Your task to perform on an android device: Open the calendar app, open the side menu, and click the "Day" option Image 0: 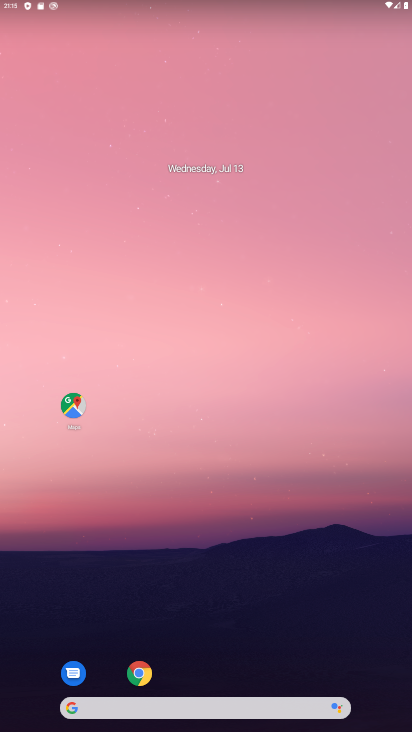
Step 0: drag from (194, 664) to (221, 71)
Your task to perform on an android device: Open the calendar app, open the side menu, and click the "Day" option Image 1: 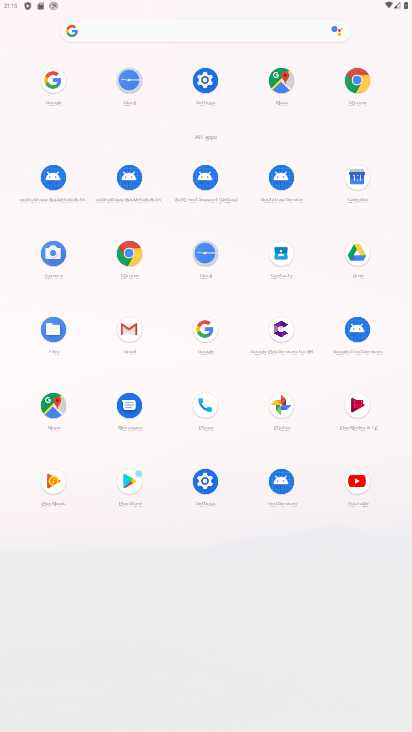
Step 1: click (351, 192)
Your task to perform on an android device: Open the calendar app, open the side menu, and click the "Day" option Image 2: 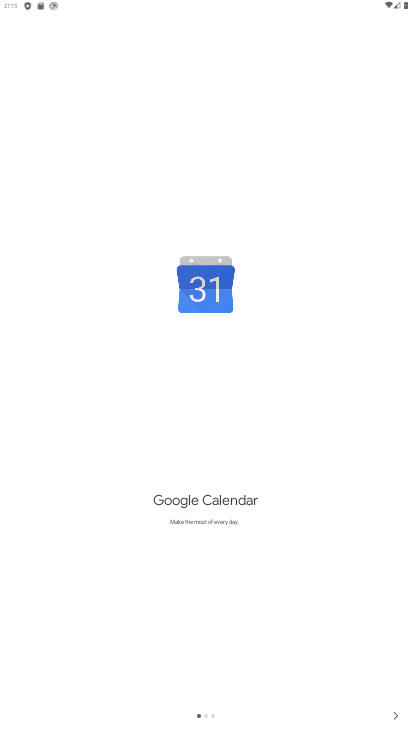
Step 2: click (395, 711)
Your task to perform on an android device: Open the calendar app, open the side menu, and click the "Day" option Image 3: 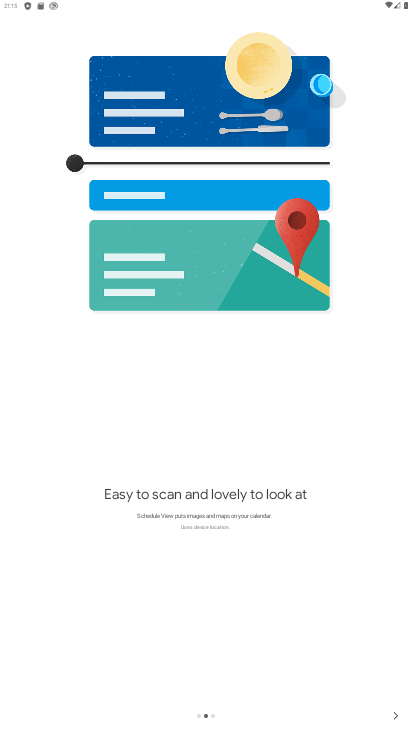
Step 3: click (395, 711)
Your task to perform on an android device: Open the calendar app, open the side menu, and click the "Day" option Image 4: 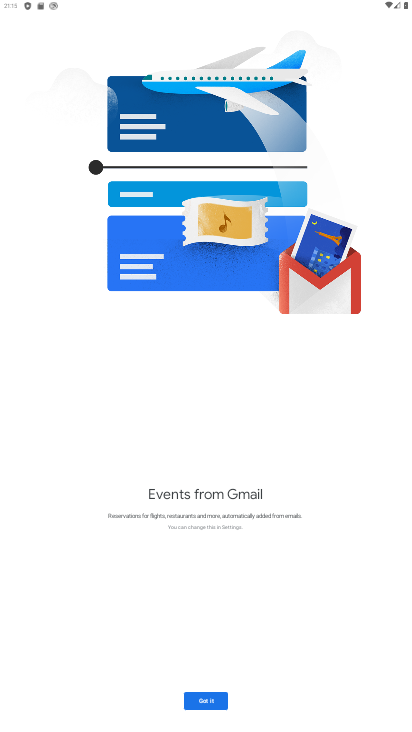
Step 4: click (213, 695)
Your task to perform on an android device: Open the calendar app, open the side menu, and click the "Day" option Image 5: 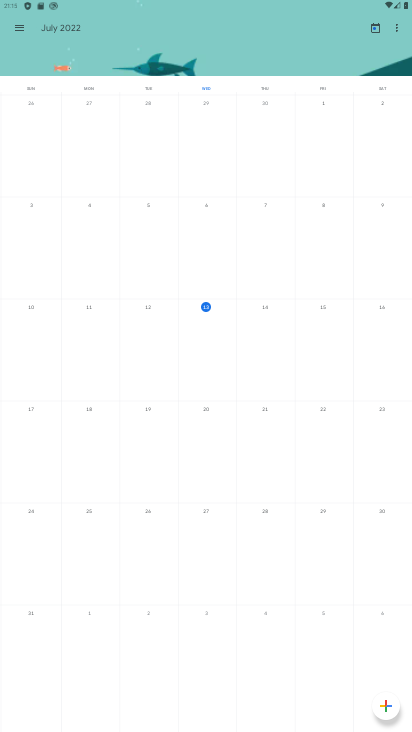
Step 5: click (12, 22)
Your task to perform on an android device: Open the calendar app, open the side menu, and click the "Day" option Image 6: 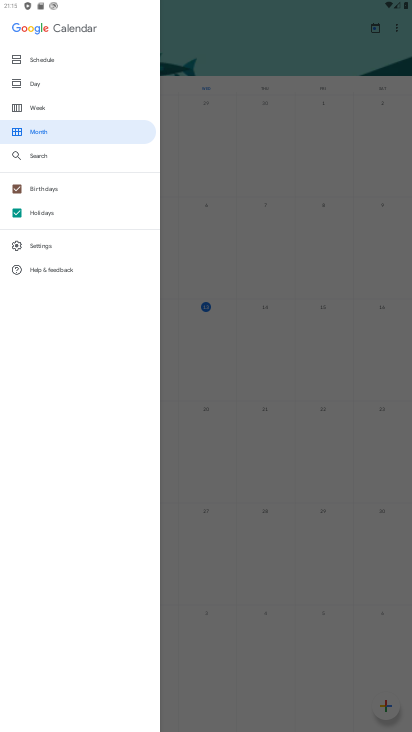
Step 6: click (37, 79)
Your task to perform on an android device: Open the calendar app, open the side menu, and click the "Day" option Image 7: 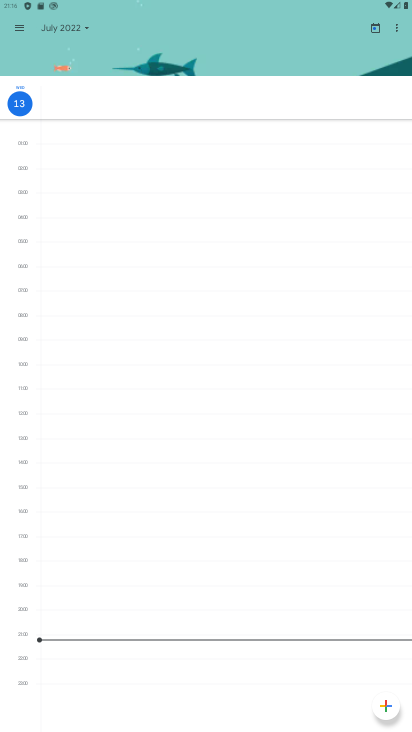
Step 7: task complete